Your task to perform on an android device: Go to Reddit.com Image 0: 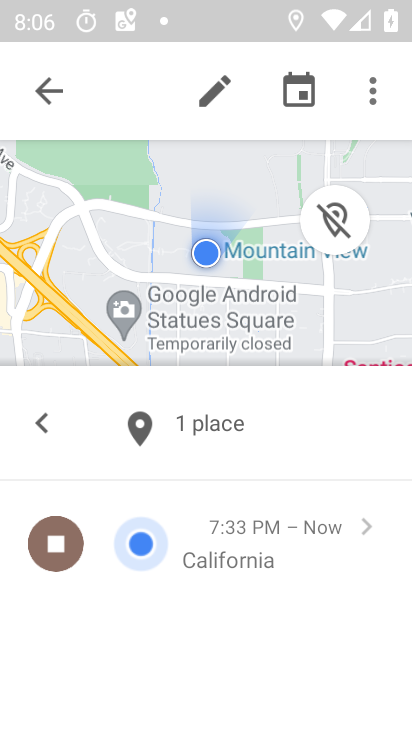
Step 0: press home button
Your task to perform on an android device: Go to Reddit.com Image 1: 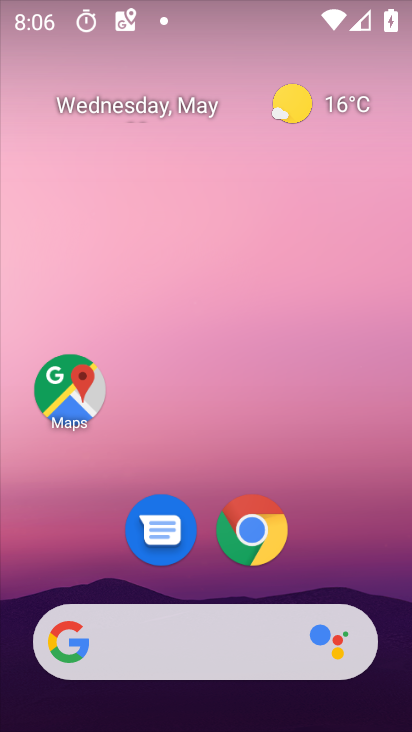
Step 1: click (248, 538)
Your task to perform on an android device: Go to Reddit.com Image 2: 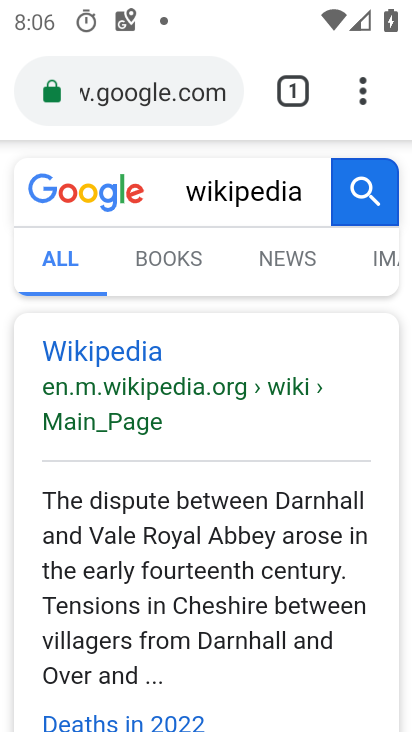
Step 2: click (124, 93)
Your task to perform on an android device: Go to Reddit.com Image 3: 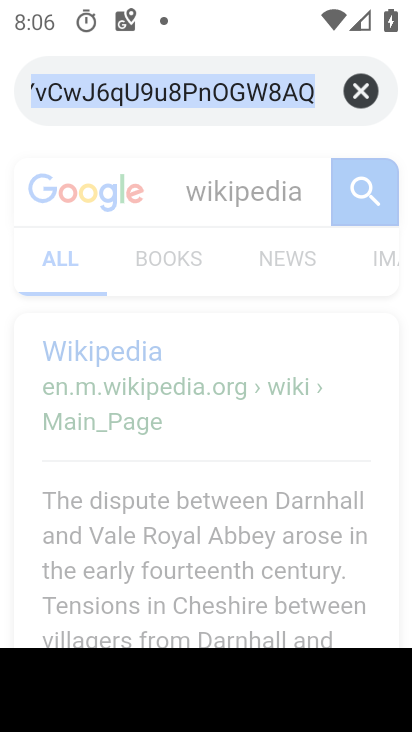
Step 3: type "Reddit.com"
Your task to perform on an android device: Go to Reddit.com Image 4: 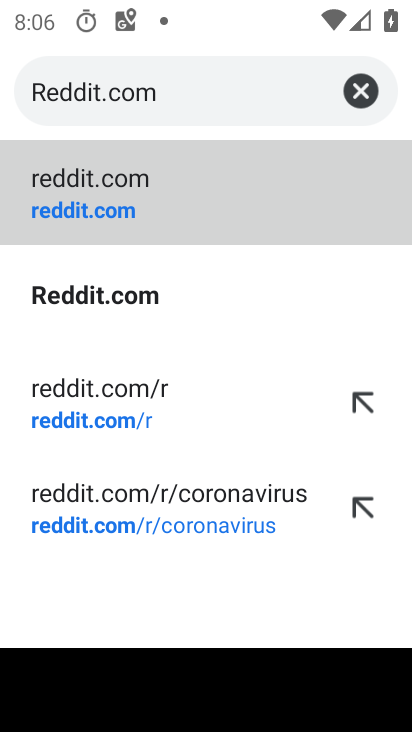
Step 4: click (153, 206)
Your task to perform on an android device: Go to Reddit.com Image 5: 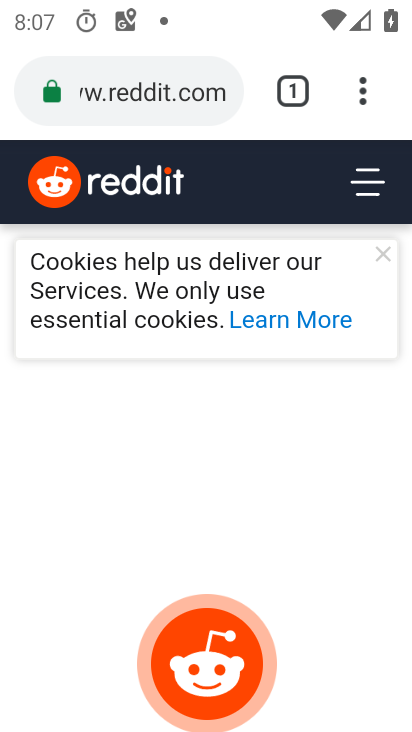
Step 5: task complete